Your task to perform on an android device: stop showing notifications on the lock screen Image 0: 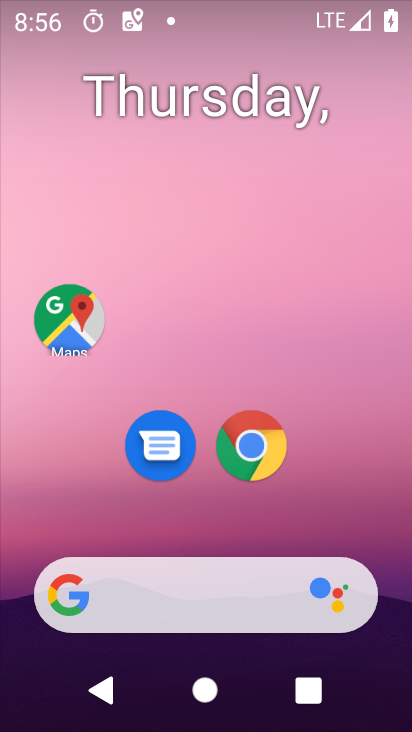
Step 0: drag from (194, 535) to (208, 195)
Your task to perform on an android device: stop showing notifications on the lock screen Image 1: 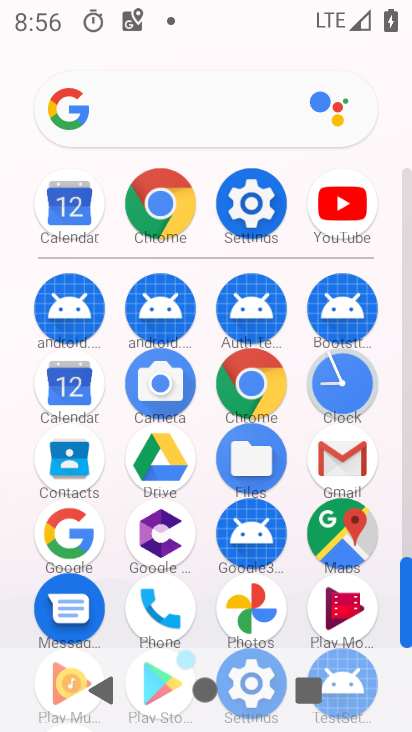
Step 1: click (249, 211)
Your task to perform on an android device: stop showing notifications on the lock screen Image 2: 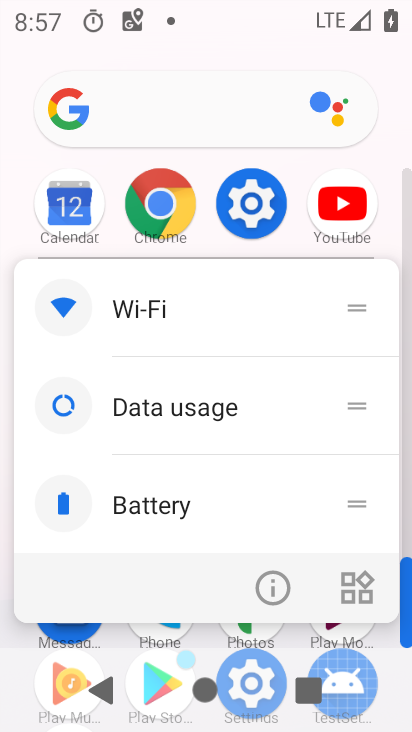
Step 2: click (271, 584)
Your task to perform on an android device: stop showing notifications on the lock screen Image 3: 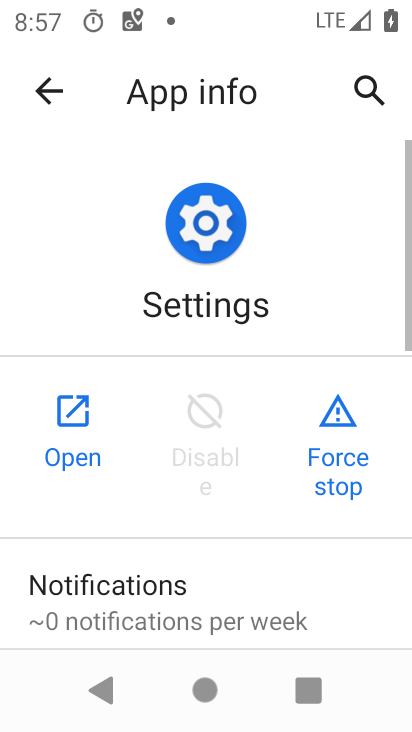
Step 3: click (56, 449)
Your task to perform on an android device: stop showing notifications on the lock screen Image 4: 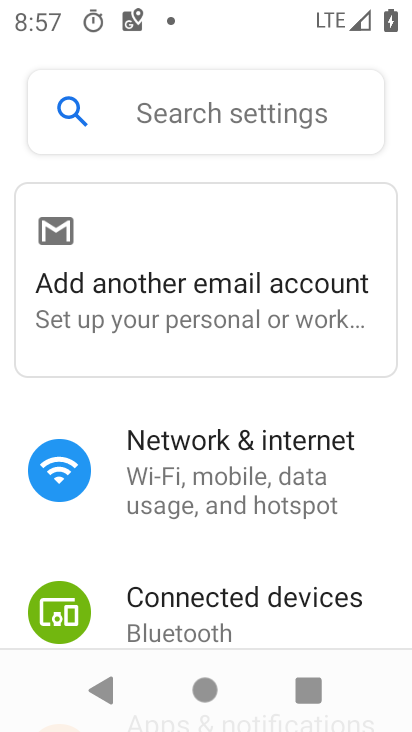
Step 4: drag from (231, 613) to (280, 110)
Your task to perform on an android device: stop showing notifications on the lock screen Image 5: 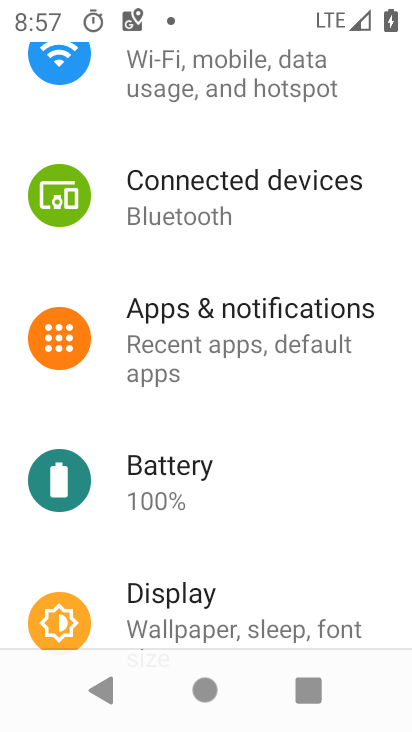
Step 5: drag from (207, 510) to (274, 138)
Your task to perform on an android device: stop showing notifications on the lock screen Image 6: 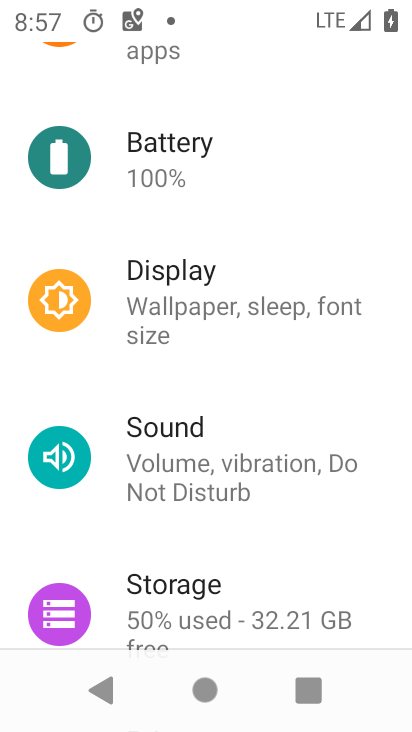
Step 6: drag from (238, 539) to (315, 198)
Your task to perform on an android device: stop showing notifications on the lock screen Image 7: 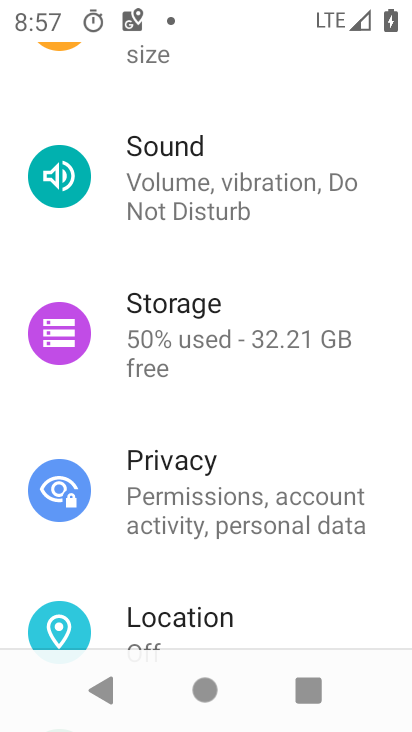
Step 7: drag from (219, 603) to (325, 157)
Your task to perform on an android device: stop showing notifications on the lock screen Image 8: 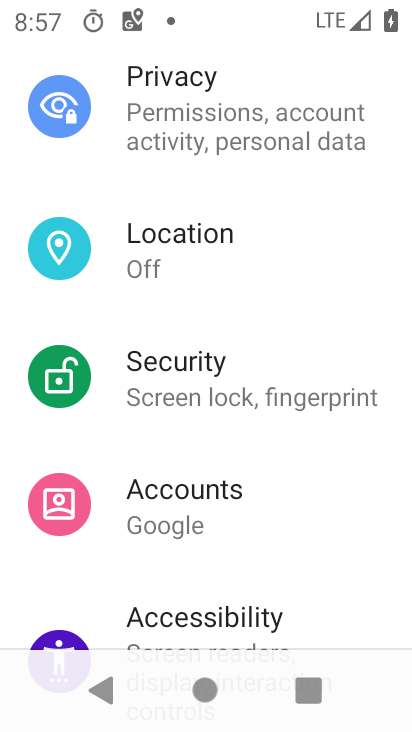
Step 8: drag from (255, 571) to (295, 724)
Your task to perform on an android device: stop showing notifications on the lock screen Image 9: 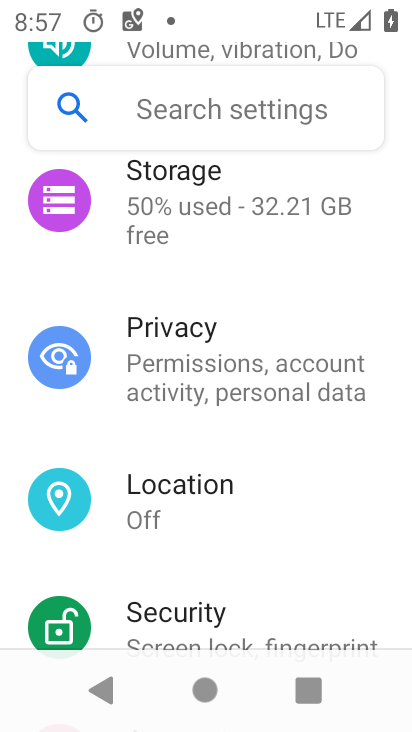
Step 9: drag from (281, 233) to (268, 701)
Your task to perform on an android device: stop showing notifications on the lock screen Image 10: 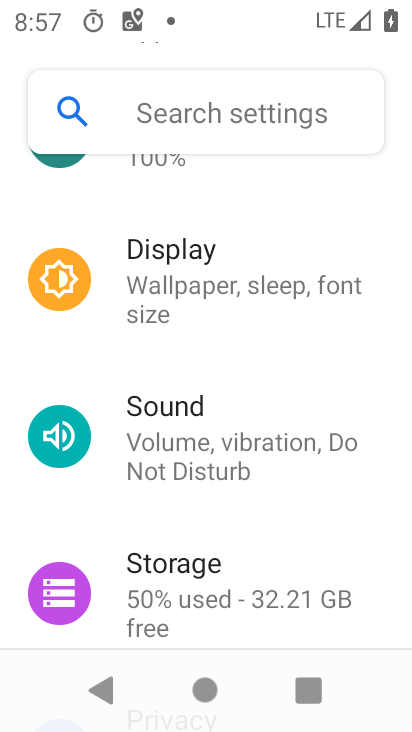
Step 10: drag from (239, 278) to (326, 731)
Your task to perform on an android device: stop showing notifications on the lock screen Image 11: 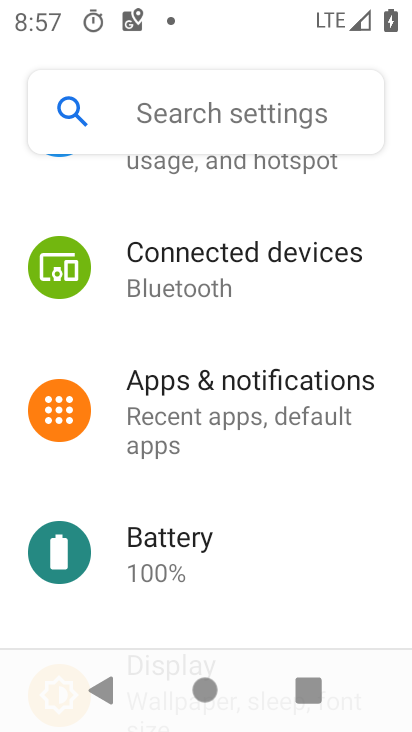
Step 11: click (222, 414)
Your task to perform on an android device: stop showing notifications on the lock screen Image 12: 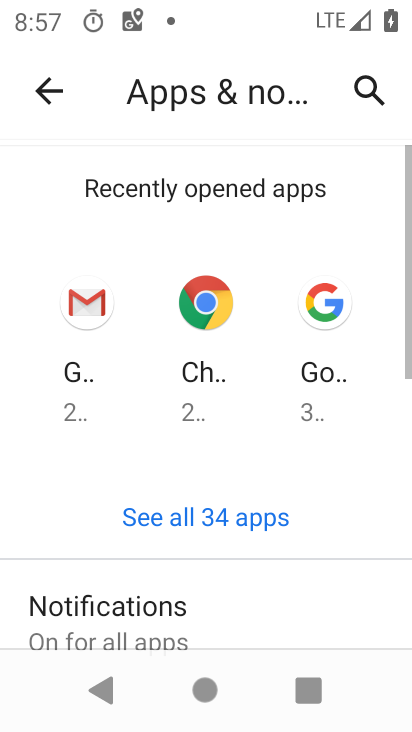
Step 12: drag from (209, 604) to (340, 177)
Your task to perform on an android device: stop showing notifications on the lock screen Image 13: 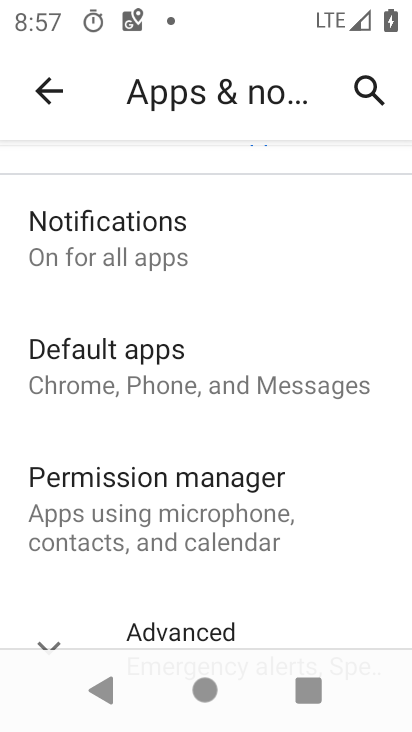
Step 13: click (220, 226)
Your task to perform on an android device: stop showing notifications on the lock screen Image 14: 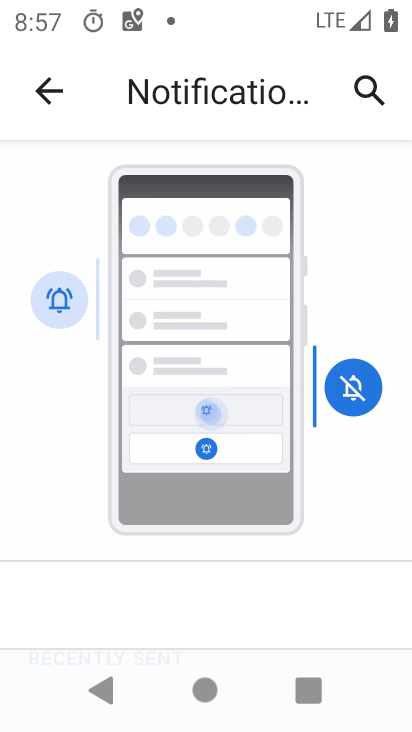
Step 14: drag from (234, 317) to (267, 135)
Your task to perform on an android device: stop showing notifications on the lock screen Image 15: 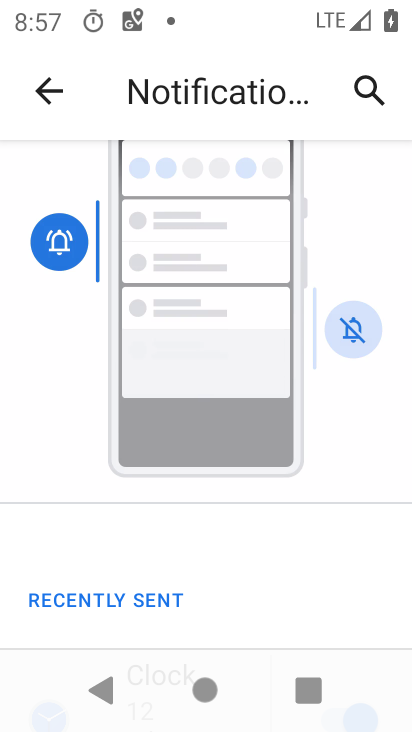
Step 15: drag from (223, 615) to (227, 171)
Your task to perform on an android device: stop showing notifications on the lock screen Image 16: 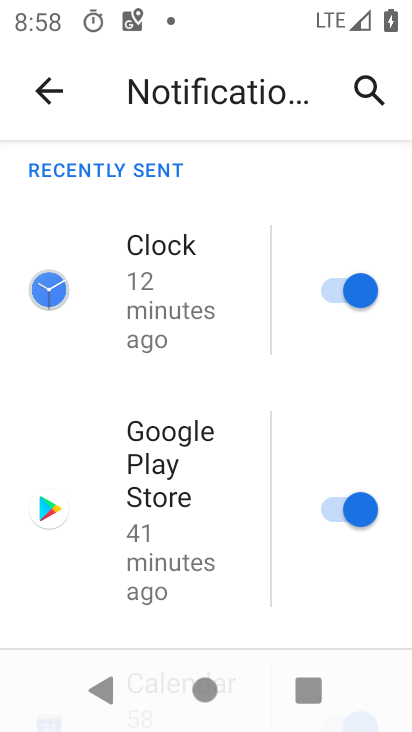
Step 16: drag from (183, 582) to (202, 95)
Your task to perform on an android device: stop showing notifications on the lock screen Image 17: 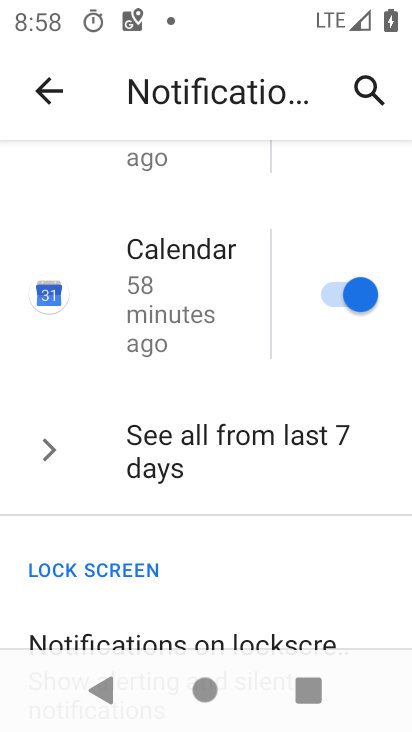
Step 17: drag from (191, 600) to (297, 234)
Your task to perform on an android device: stop showing notifications on the lock screen Image 18: 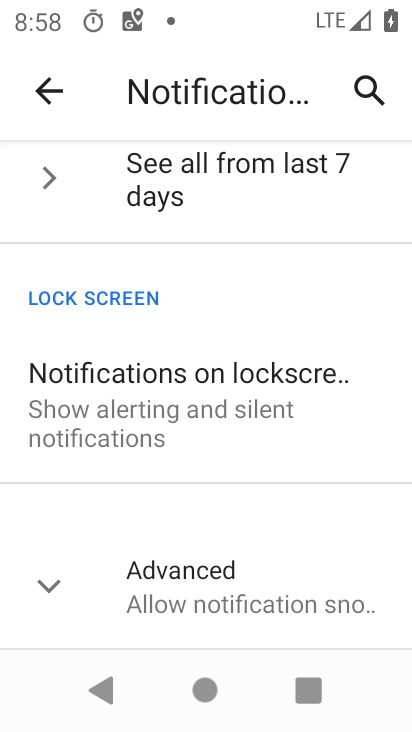
Step 18: click (171, 414)
Your task to perform on an android device: stop showing notifications on the lock screen Image 19: 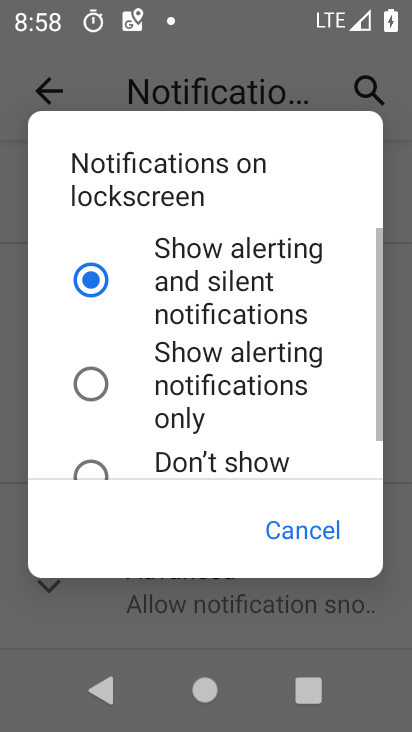
Step 19: click (116, 372)
Your task to perform on an android device: stop showing notifications on the lock screen Image 20: 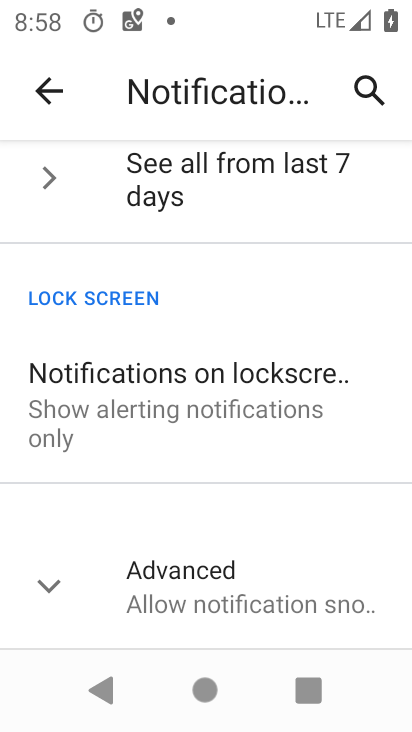
Step 20: click (135, 380)
Your task to perform on an android device: stop showing notifications on the lock screen Image 21: 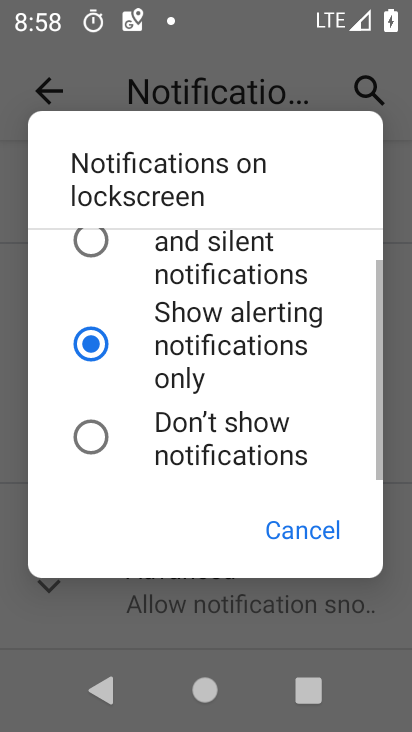
Step 21: click (119, 445)
Your task to perform on an android device: stop showing notifications on the lock screen Image 22: 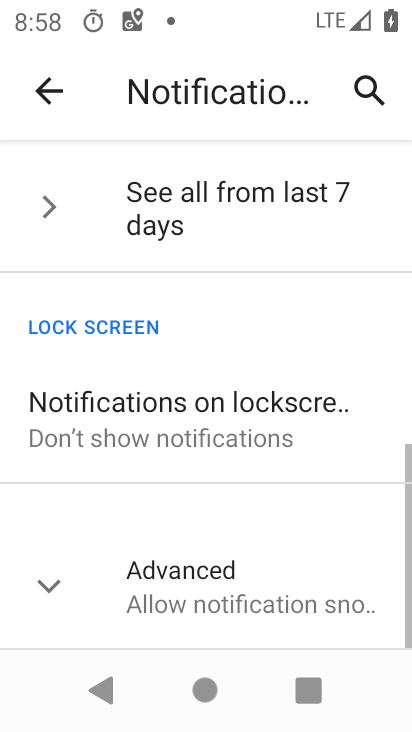
Step 22: task complete